Your task to perform on an android device: turn off translation in the chrome app Image 0: 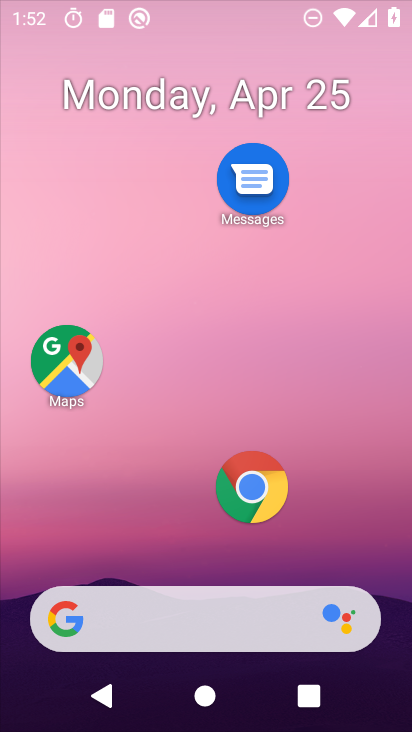
Step 0: drag from (279, 611) to (305, 33)
Your task to perform on an android device: turn off translation in the chrome app Image 1: 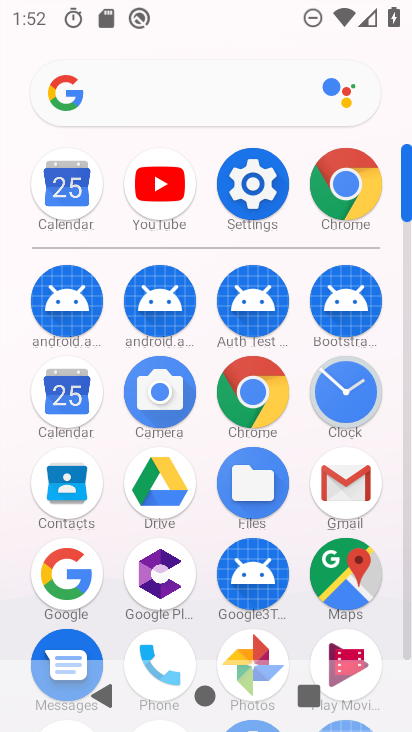
Step 1: click (254, 389)
Your task to perform on an android device: turn off translation in the chrome app Image 2: 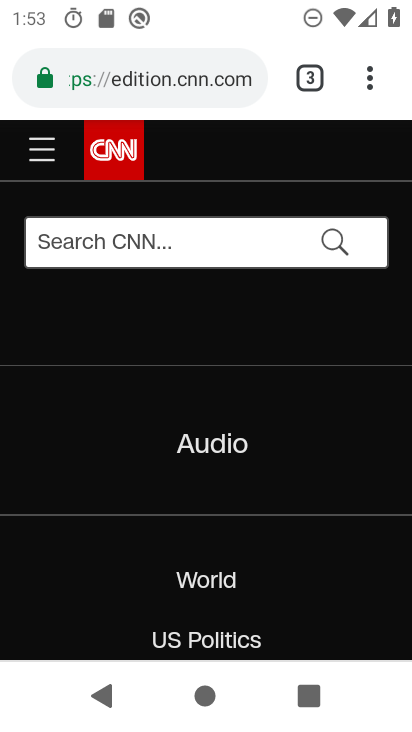
Step 2: drag from (371, 75) to (277, 411)
Your task to perform on an android device: turn off translation in the chrome app Image 3: 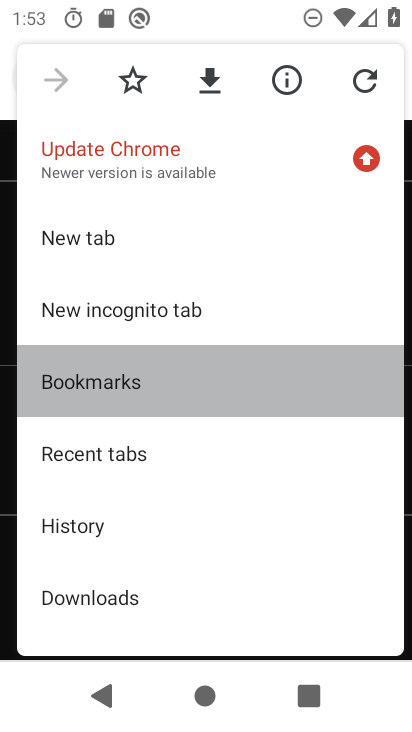
Step 3: drag from (265, 468) to (235, 583)
Your task to perform on an android device: turn off translation in the chrome app Image 4: 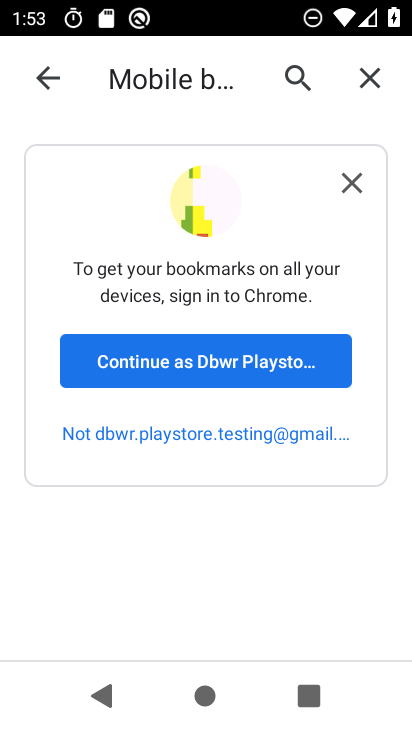
Step 4: click (56, 77)
Your task to perform on an android device: turn off translation in the chrome app Image 5: 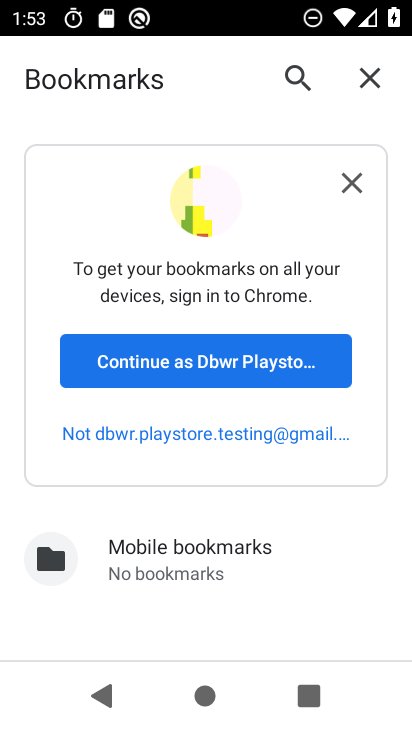
Step 5: click (371, 74)
Your task to perform on an android device: turn off translation in the chrome app Image 6: 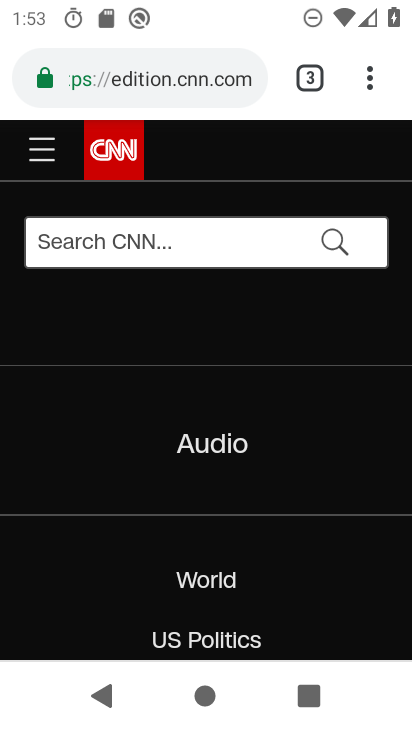
Step 6: drag from (368, 71) to (125, 547)
Your task to perform on an android device: turn off translation in the chrome app Image 7: 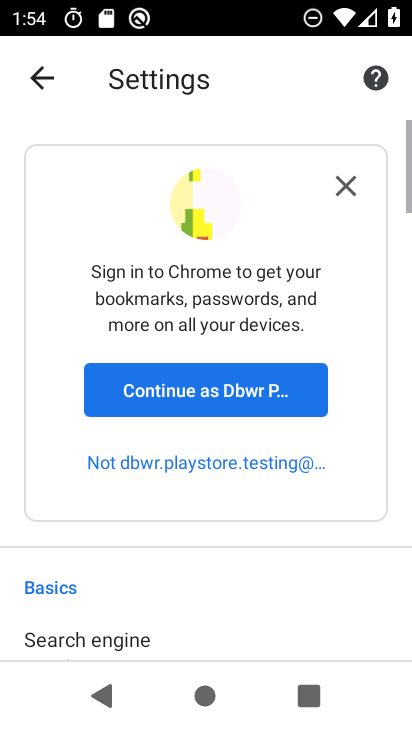
Step 7: drag from (133, 614) to (127, 13)
Your task to perform on an android device: turn off translation in the chrome app Image 8: 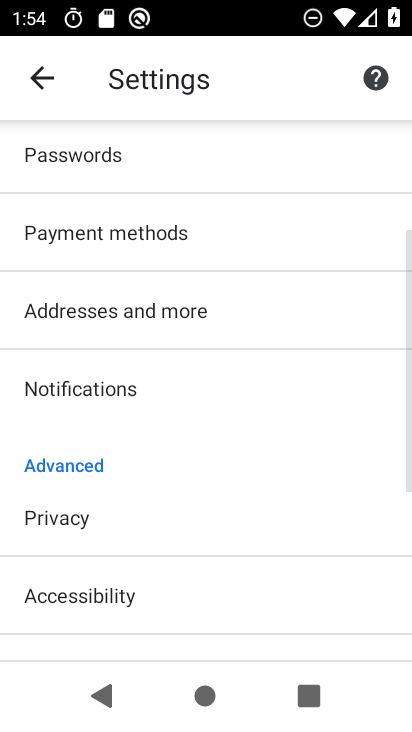
Step 8: drag from (210, 649) to (255, 114)
Your task to perform on an android device: turn off translation in the chrome app Image 9: 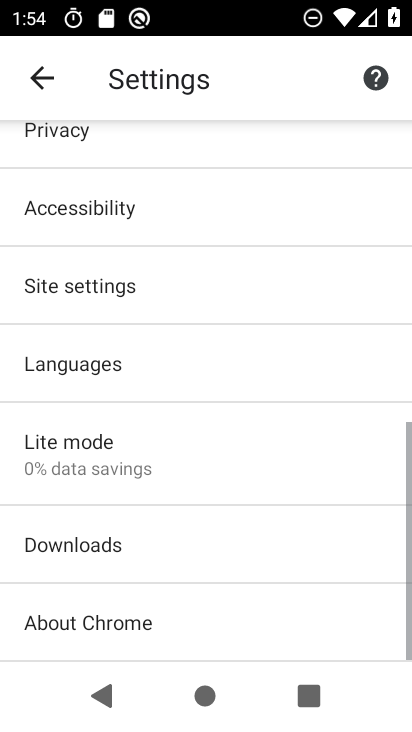
Step 9: click (188, 362)
Your task to perform on an android device: turn off translation in the chrome app Image 10: 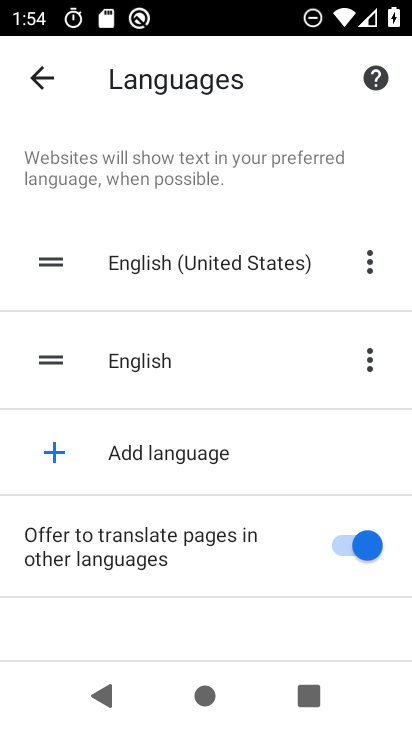
Step 10: click (348, 549)
Your task to perform on an android device: turn off translation in the chrome app Image 11: 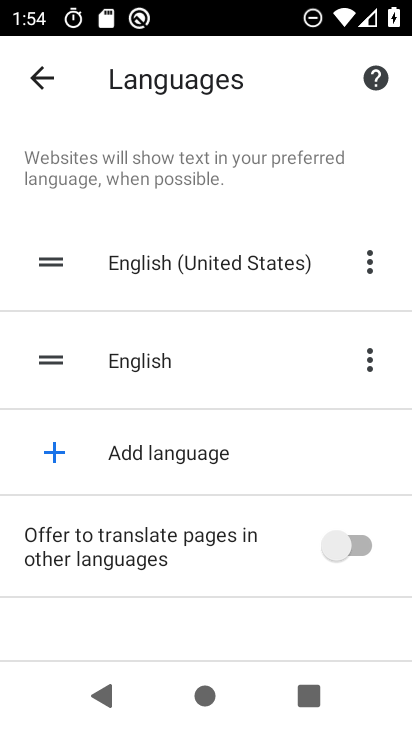
Step 11: task complete